Your task to perform on an android device: Open Youtube and go to the subscriptions tab Image 0: 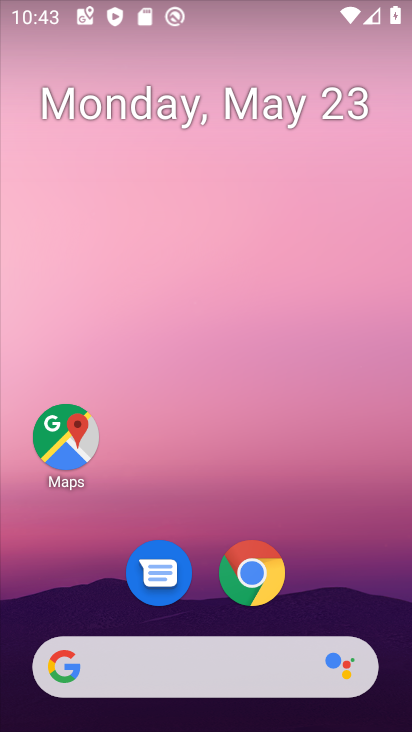
Step 0: drag from (204, 674) to (254, 125)
Your task to perform on an android device: Open Youtube and go to the subscriptions tab Image 1: 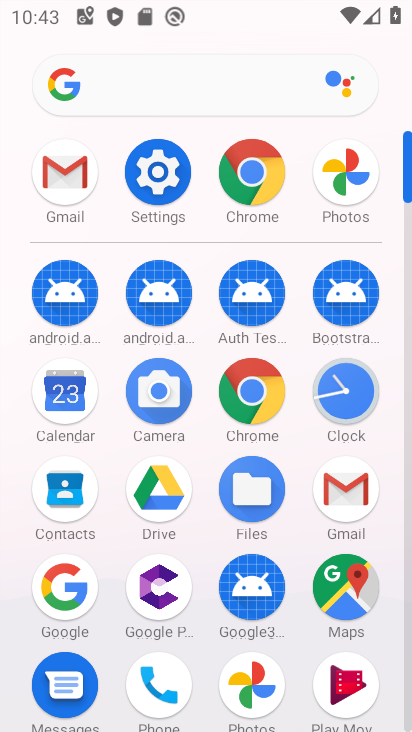
Step 1: drag from (261, 513) to (310, 230)
Your task to perform on an android device: Open Youtube and go to the subscriptions tab Image 2: 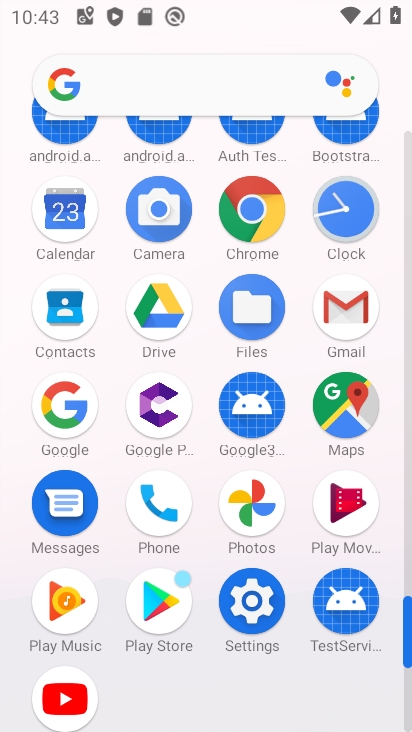
Step 2: click (77, 689)
Your task to perform on an android device: Open Youtube and go to the subscriptions tab Image 3: 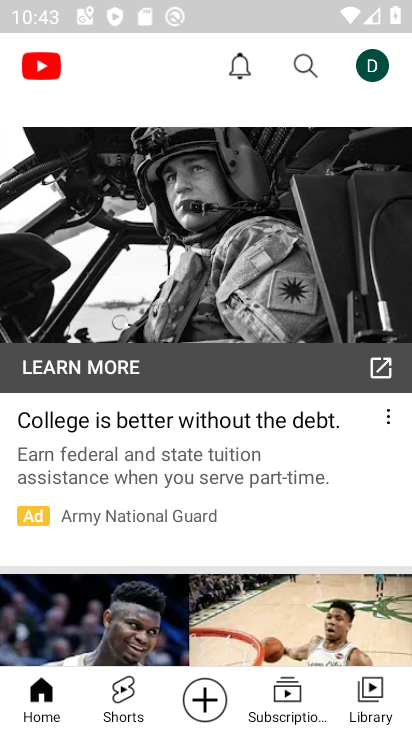
Step 3: click (302, 715)
Your task to perform on an android device: Open Youtube and go to the subscriptions tab Image 4: 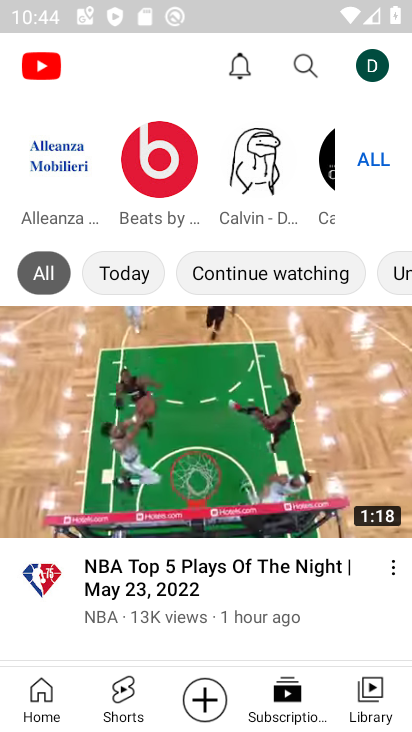
Step 4: task complete